Your task to perform on an android device: make emails show in primary in the gmail app Image 0: 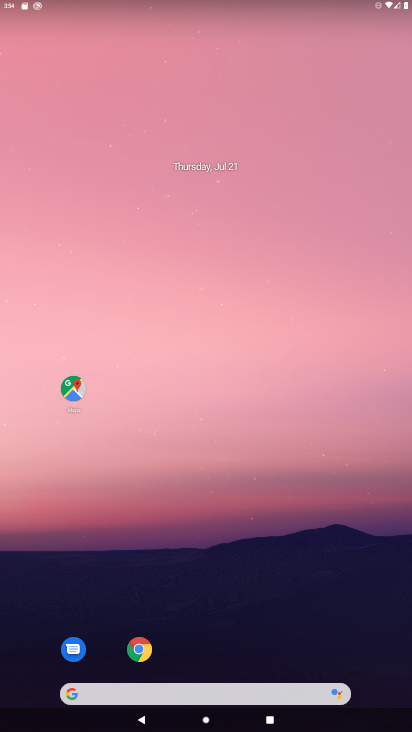
Step 0: drag from (228, 643) to (144, 211)
Your task to perform on an android device: make emails show in primary in the gmail app Image 1: 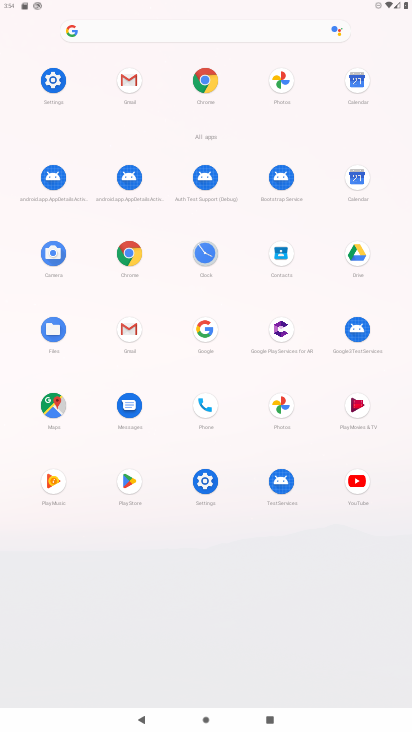
Step 1: click (126, 331)
Your task to perform on an android device: make emails show in primary in the gmail app Image 2: 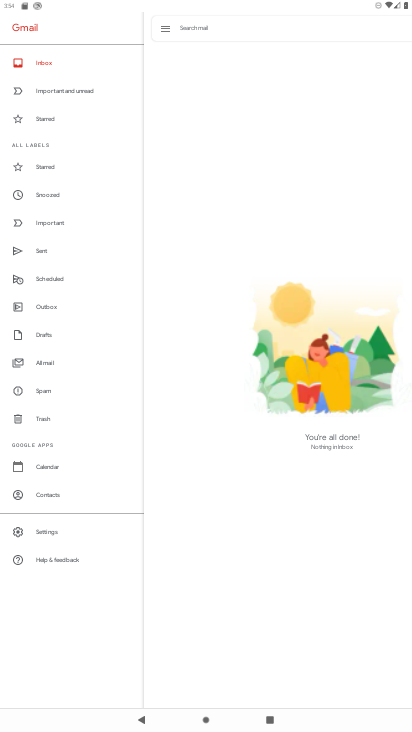
Step 2: click (85, 532)
Your task to perform on an android device: make emails show in primary in the gmail app Image 3: 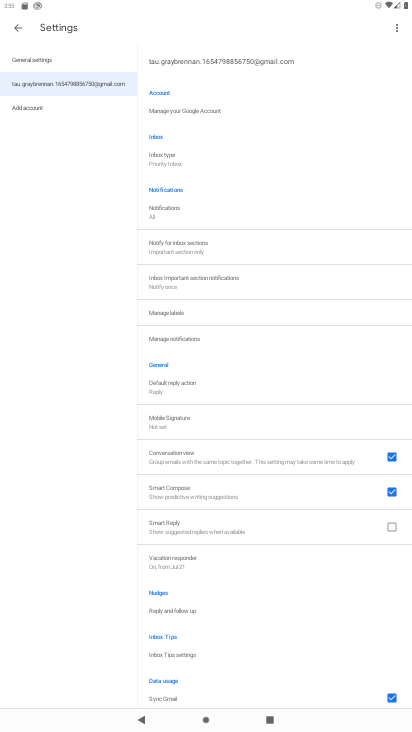
Step 3: click (171, 167)
Your task to perform on an android device: make emails show in primary in the gmail app Image 4: 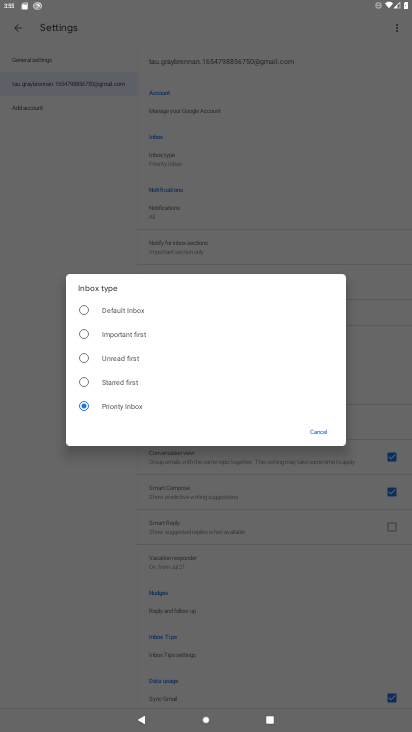
Step 4: click (120, 310)
Your task to perform on an android device: make emails show in primary in the gmail app Image 5: 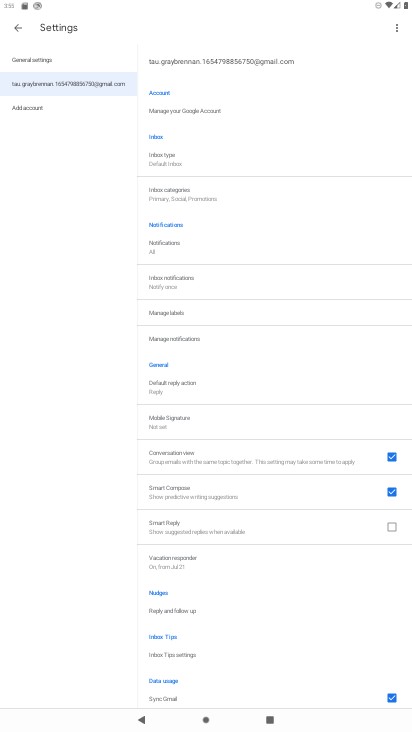
Step 5: task complete